Your task to perform on an android device: open device folders in google photos Image 0: 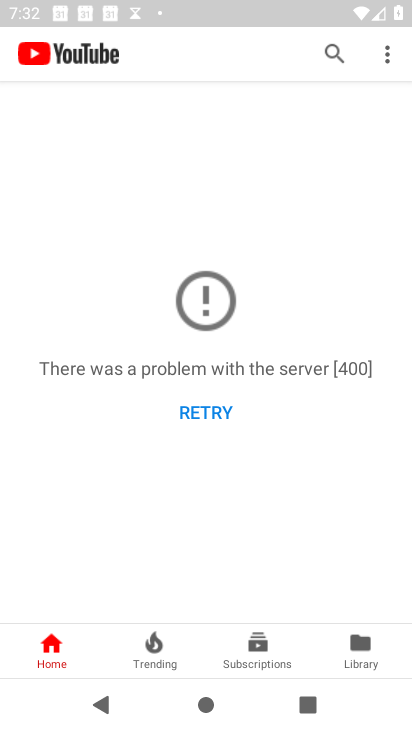
Step 0: press home button
Your task to perform on an android device: open device folders in google photos Image 1: 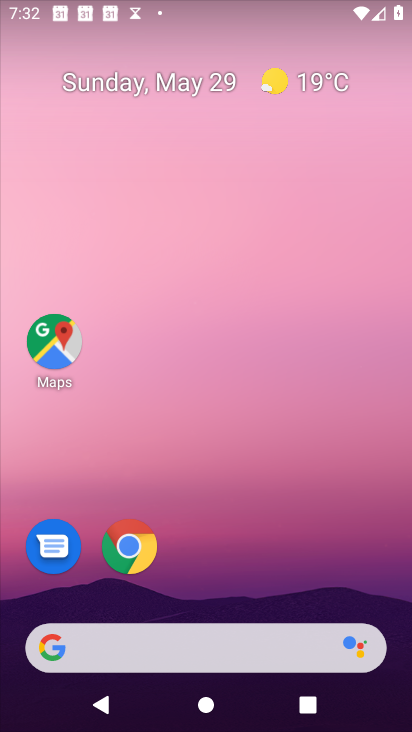
Step 1: drag from (149, 607) to (236, 26)
Your task to perform on an android device: open device folders in google photos Image 2: 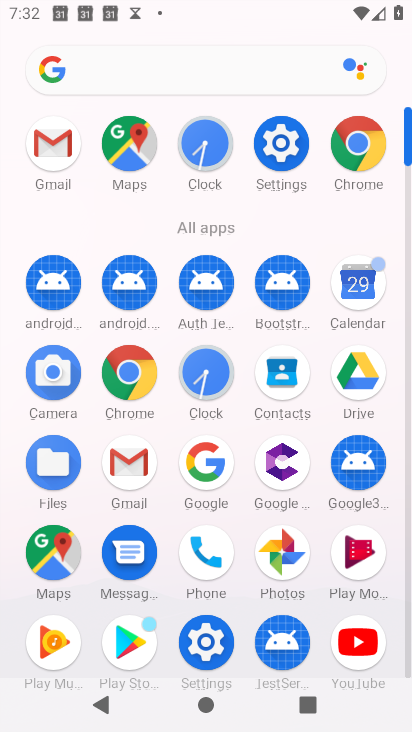
Step 2: click (285, 567)
Your task to perform on an android device: open device folders in google photos Image 3: 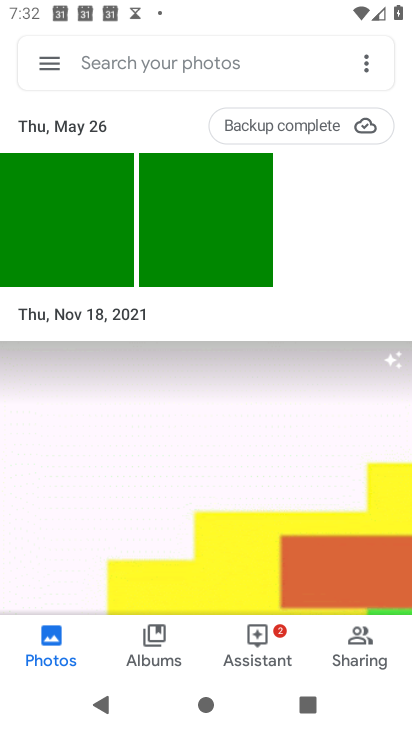
Step 3: click (53, 78)
Your task to perform on an android device: open device folders in google photos Image 4: 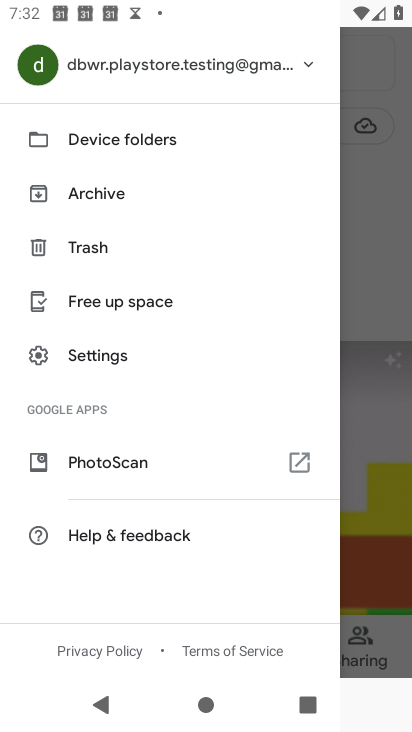
Step 4: click (83, 150)
Your task to perform on an android device: open device folders in google photos Image 5: 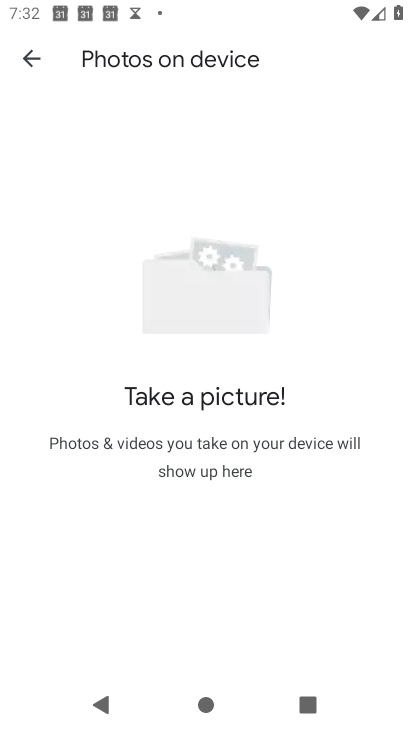
Step 5: task complete